Your task to perform on an android device: see creations saved in the google photos Image 0: 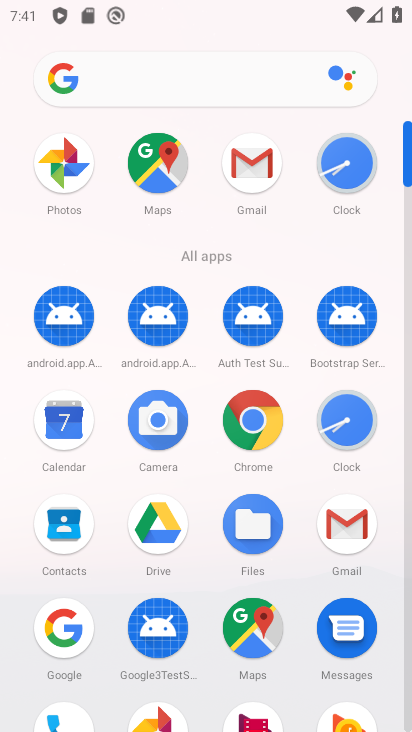
Step 0: click (65, 164)
Your task to perform on an android device: see creations saved in the google photos Image 1: 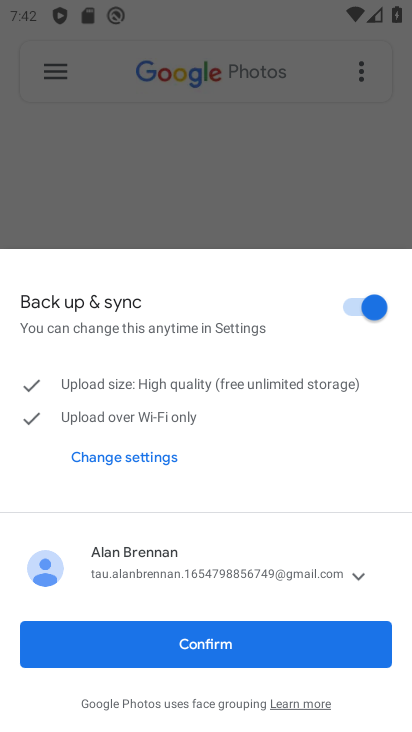
Step 1: click (277, 655)
Your task to perform on an android device: see creations saved in the google photos Image 2: 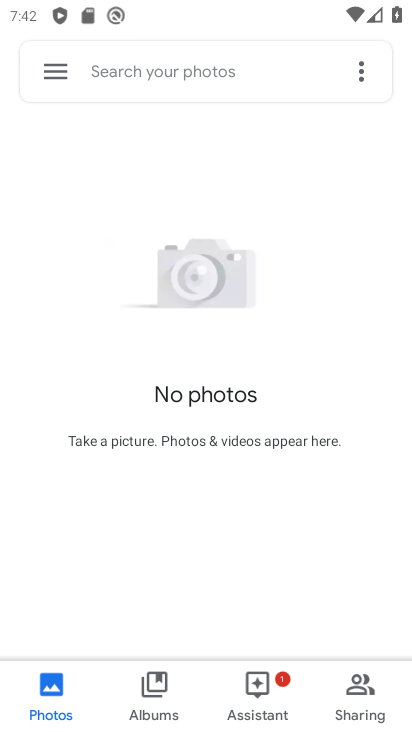
Step 2: click (113, 72)
Your task to perform on an android device: see creations saved in the google photos Image 3: 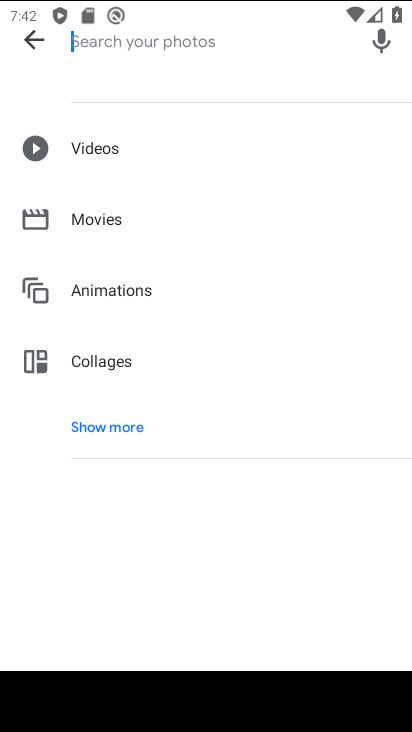
Step 3: click (112, 425)
Your task to perform on an android device: see creations saved in the google photos Image 4: 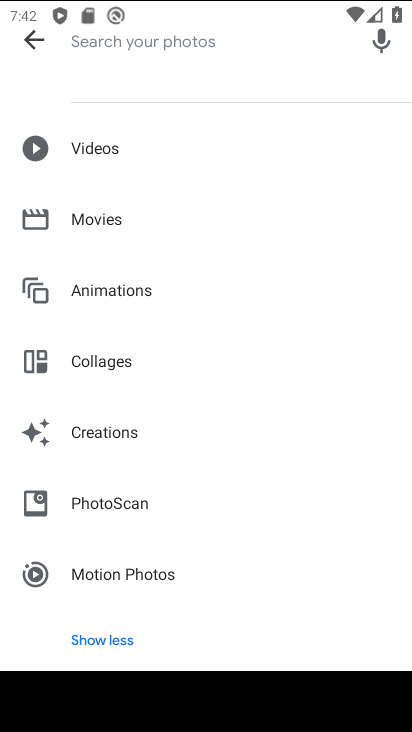
Step 4: click (114, 428)
Your task to perform on an android device: see creations saved in the google photos Image 5: 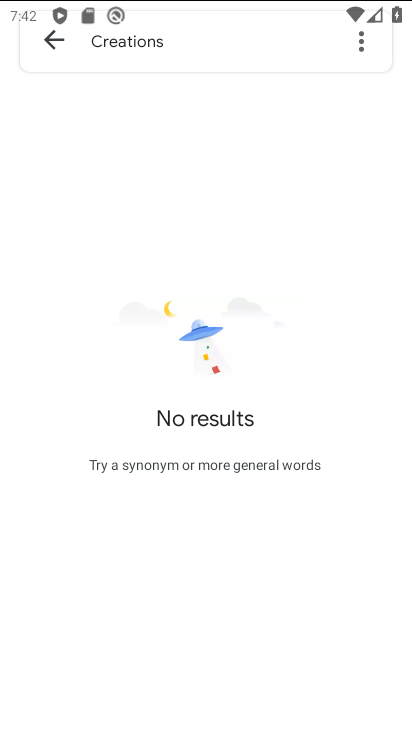
Step 5: task complete